Your task to perform on an android device: Open the Play Movies app and select the watchlist tab. Image 0: 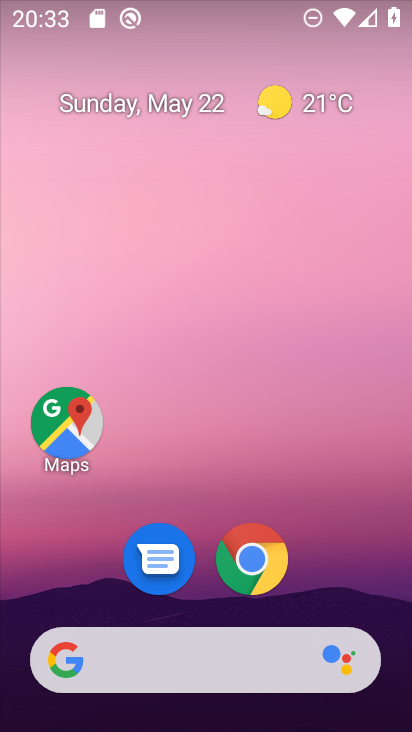
Step 0: drag from (292, 698) to (165, 209)
Your task to perform on an android device: Open the Play Movies app and select the watchlist tab. Image 1: 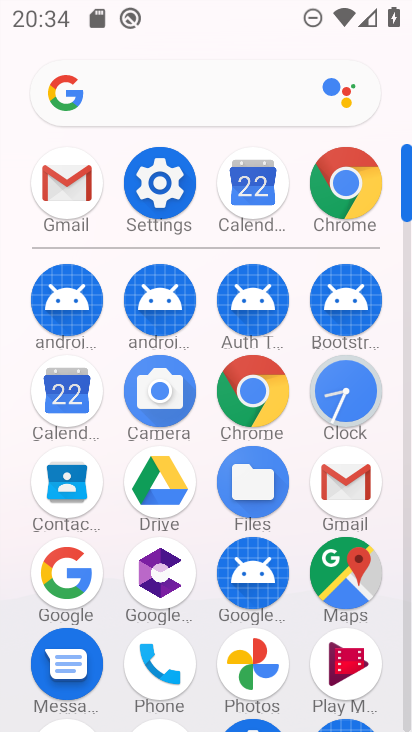
Step 1: click (345, 642)
Your task to perform on an android device: Open the Play Movies app and select the watchlist tab. Image 2: 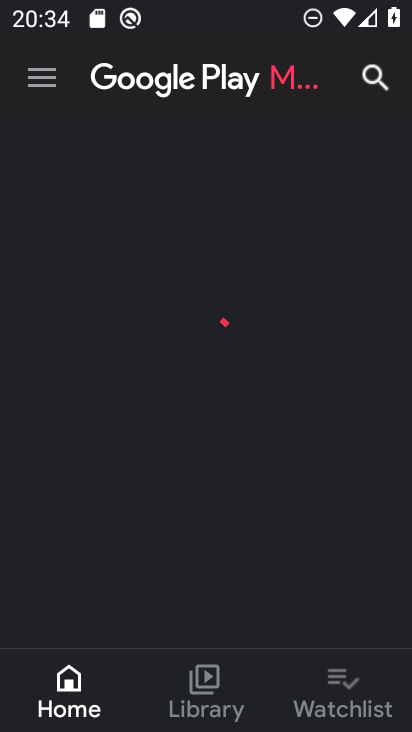
Step 2: click (342, 689)
Your task to perform on an android device: Open the Play Movies app and select the watchlist tab. Image 3: 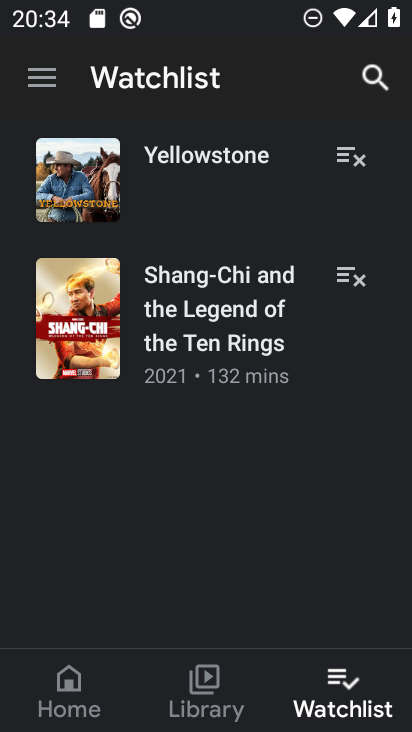
Step 3: task complete